Your task to perform on an android device: change the upload size in google photos Image 0: 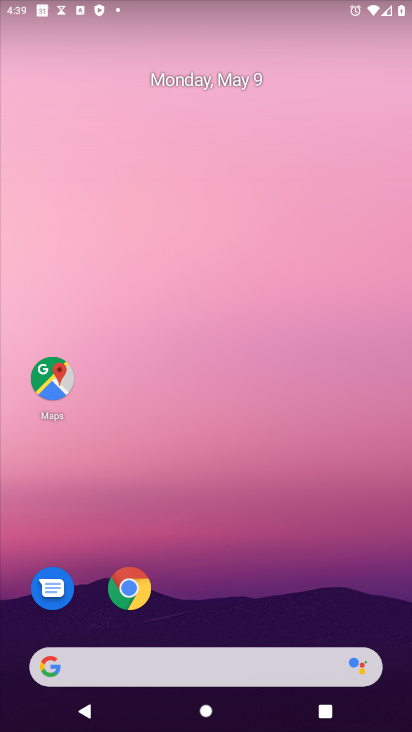
Step 0: drag from (248, 351) to (222, 0)
Your task to perform on an android device: change the upload size in google photos Image 1: 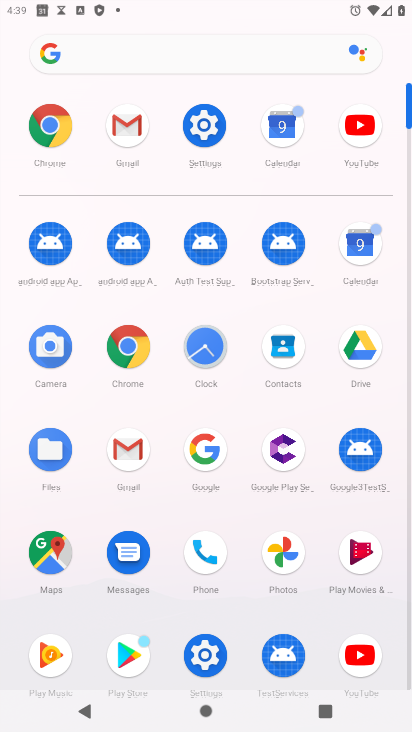
Step 1: click (280, 549)
Your task to perform on an android device: change the upload size in google photos Image 2: 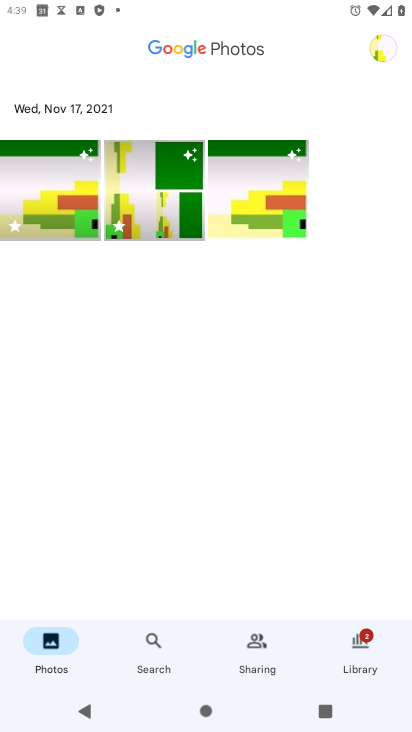
Step 2: click (384, 45)
Your task to perform on an android device: change the upload size in google photos Image 3: 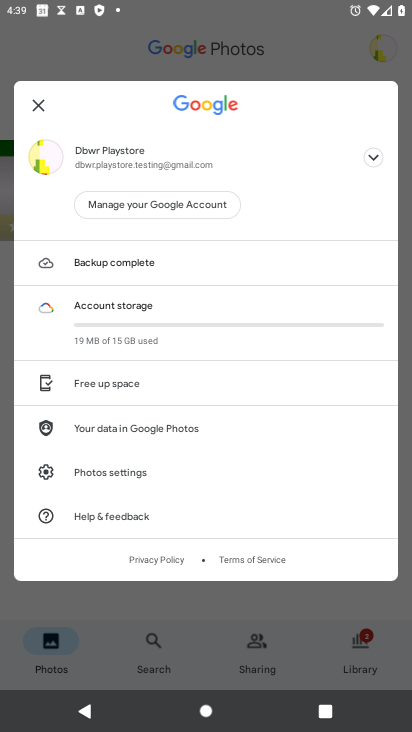
Step 3: click (175, 263)
Your task to perform on an android device: change the upload size in google photos Image 4: 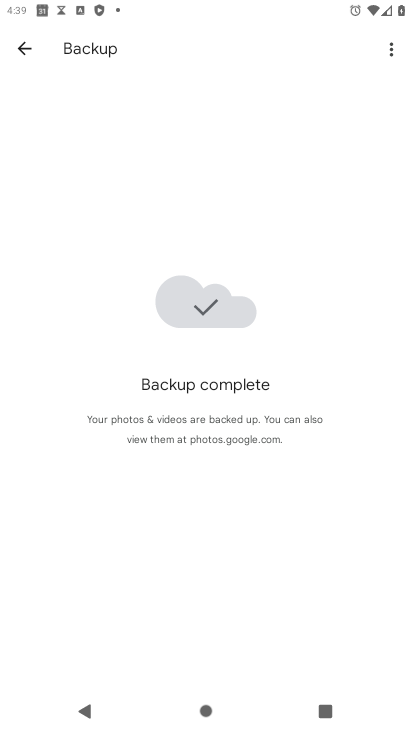
Step 4: click (20, 51)
Your task to perform on an android device: change the upload size in google photos Image 5: 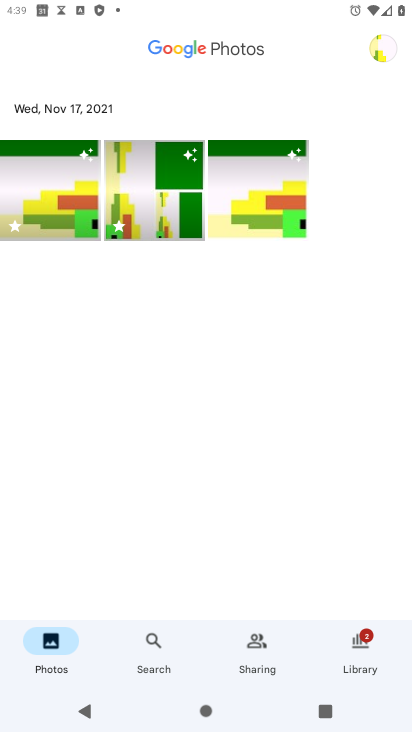
Step 5: click (379, 41)
Your task to perform on an android device: change the upload size in google photos Image 6: 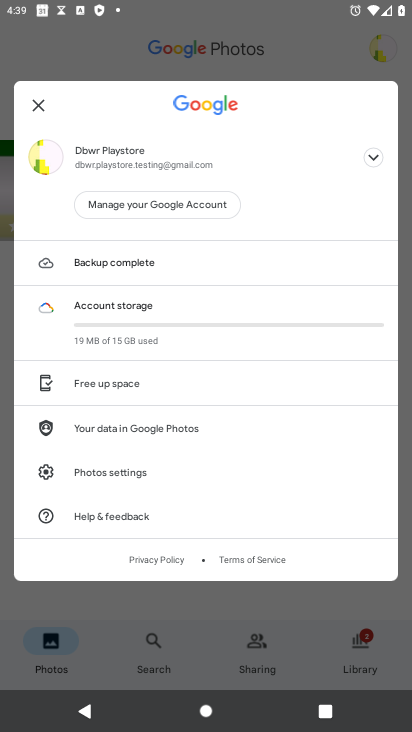
Step 6: click (124, 472)
Your task to perform on an android device: change the upload size in google photos Image 7: 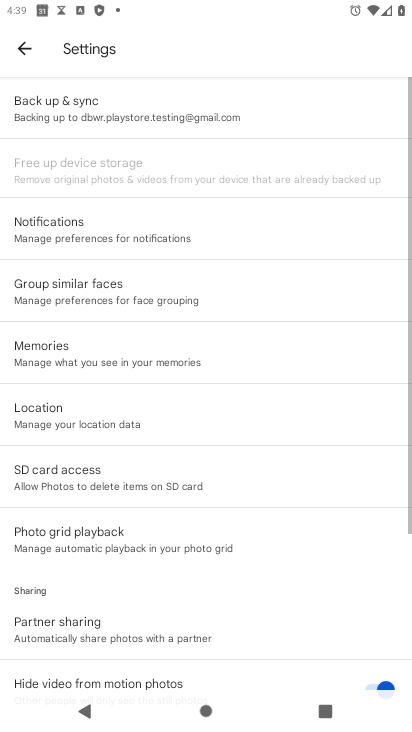
Step 7: click (109, 119)
Your task to perform on an android device: change the upload size in google photos Image 8: 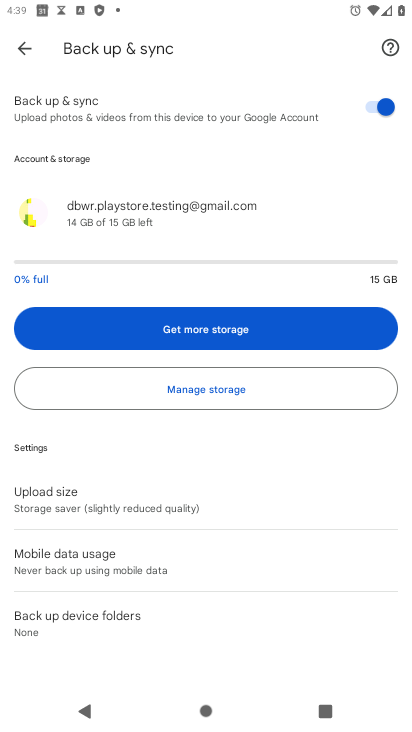
Step 8: click (82, 501)
Your task to perform on an android device: change the upload size in google photos Image 9: 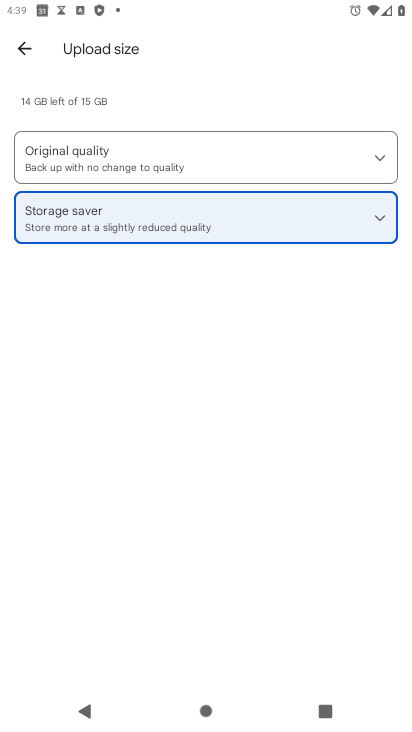
Step 9: click (104, 149)
Your task to perform on an android device: change the upload size in google photos Image 10: 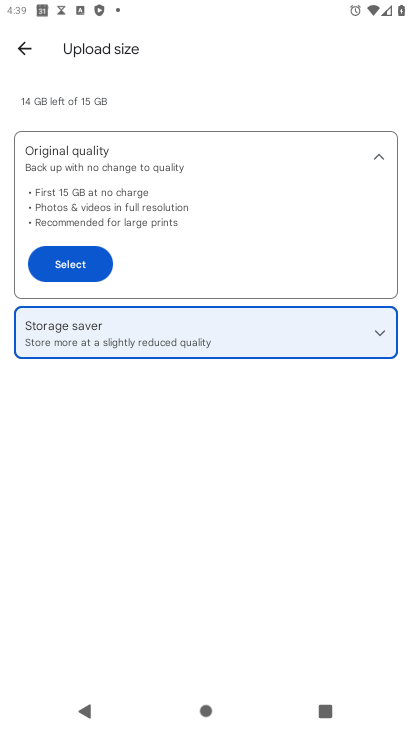
Step 10: click (72, 266)
Your task to perform on an android device: change the upload size in google photos Image 11: 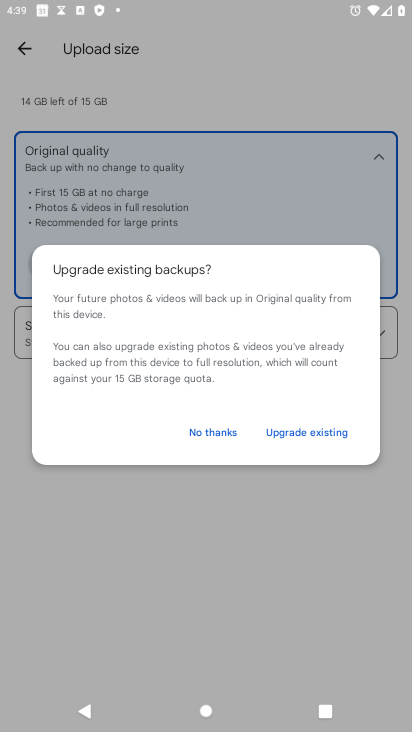
Step 11: click (217, 427)
Your task to perform on an android device: change the upload size in google photos Image 12: 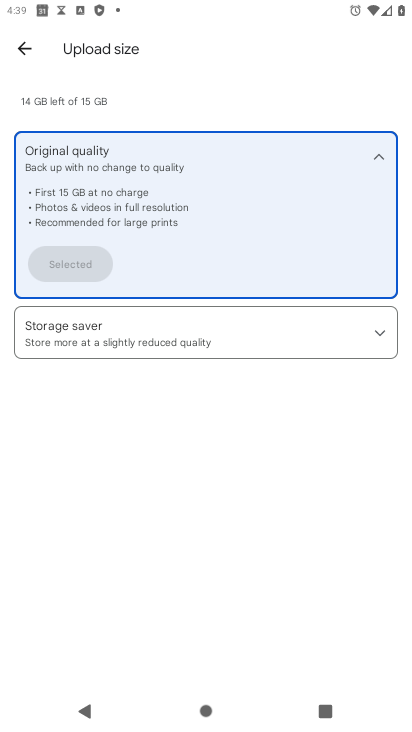
Step 12: task complete